Your task to perform on an android device: Open CNN.com Image 0: 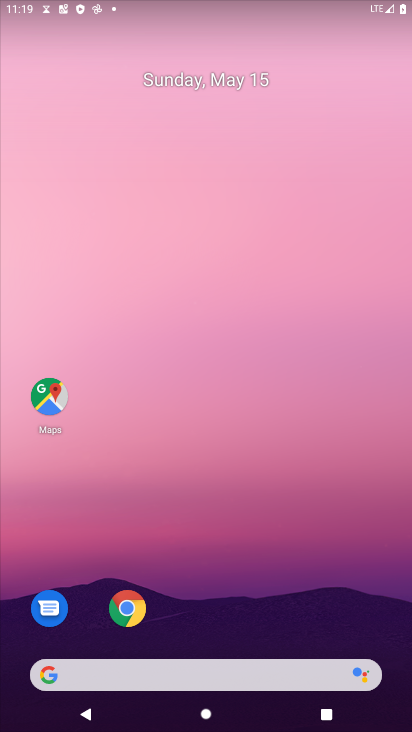
Step 0: drag from (302, 620) to (326, 88)
Your task to perform on an android device: Open CNN.com Image 1: 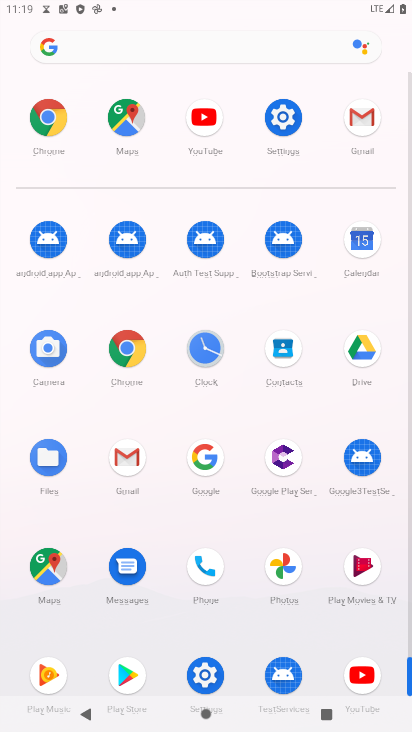
Step 1: click (56, 116)
Your task to perform on an android device: Open CNN.com Image 2: 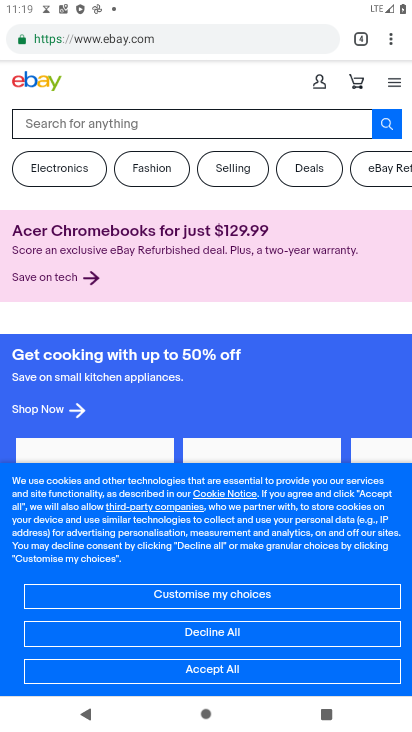
Step 2: click (176, 43)
Your task to perform on an android device: Open CNN.com Image 3: 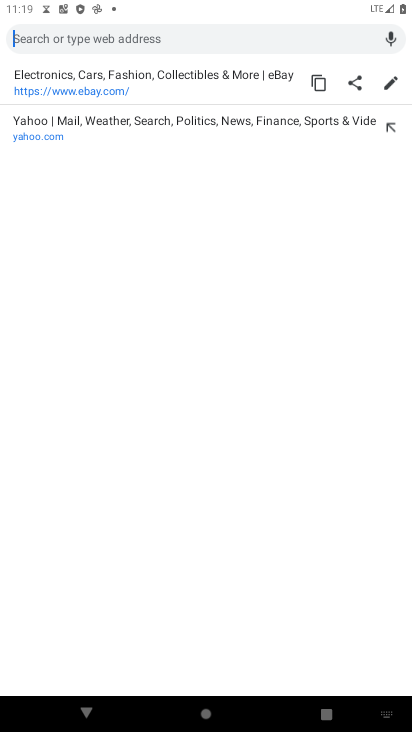
Step 3: type "cnn"
Your task to perform on an android device: Open CNN.com Image 4: 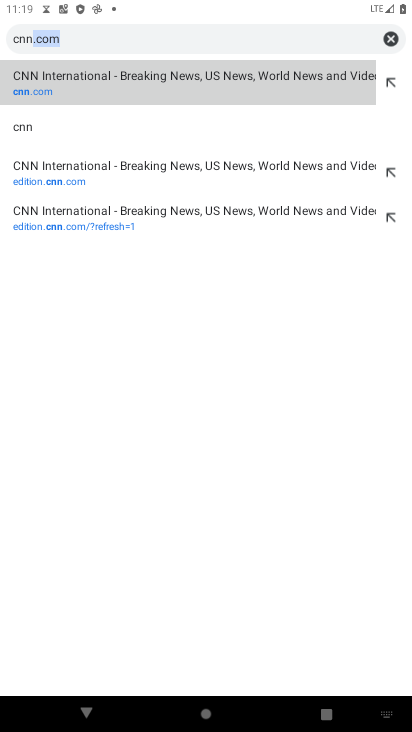
Step 4: click (80, 83)
Your task to perform on an android device: Open CNN.com Image 5: 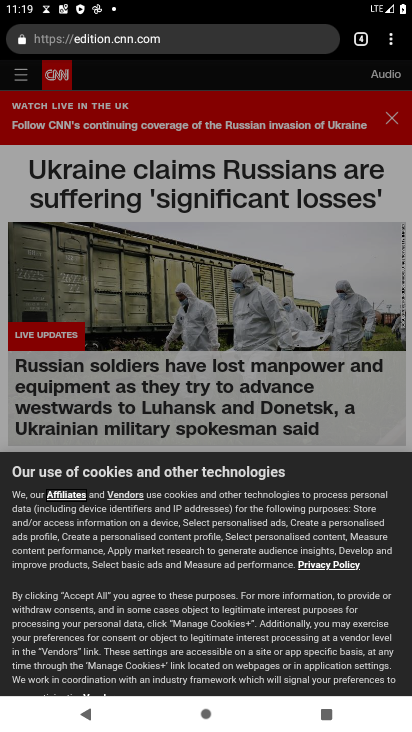
Step 5: task complete